Your task to perform on an android device: Open the map Image 0: 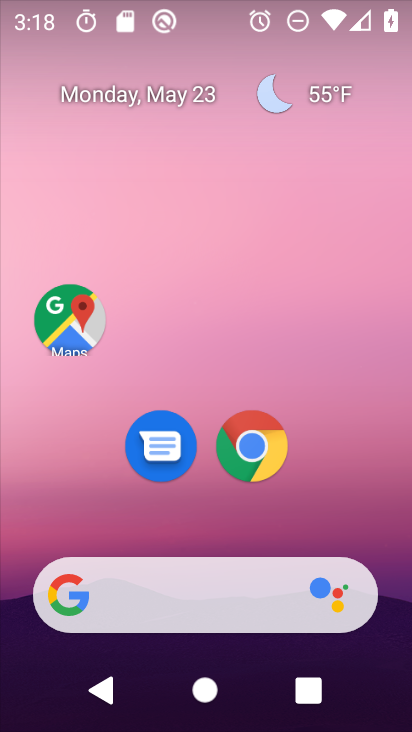
Step 0: click (56, 345)
Your task to perform on an android device: Open the map Image 1: 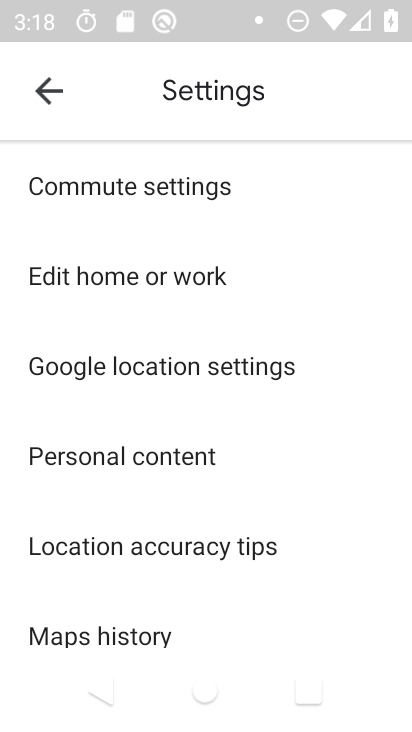
Step 1: drag from (224, 576) to (197, 353)
Your task to perform on an android device: Open the map Image 2: 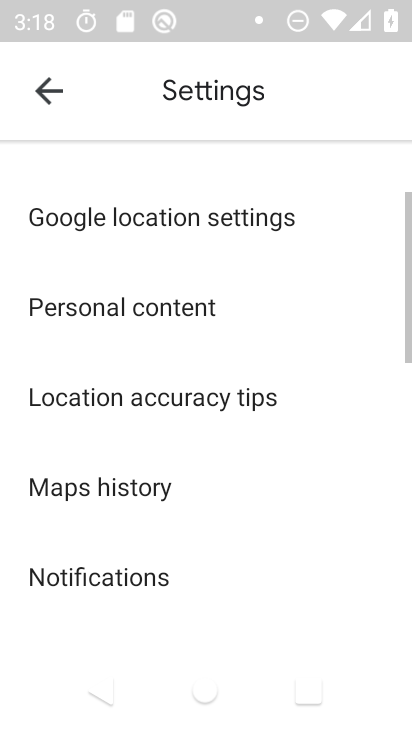
Step 2: click (29, 79)
Your task to perform on an android device: Open the map Image 3: 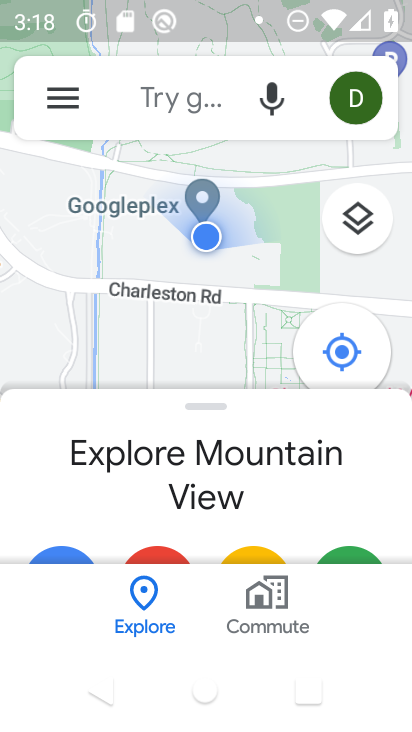
Step 3: task complete